Your task to perform on an android device: turn off data saver in the chrome app Image 0: 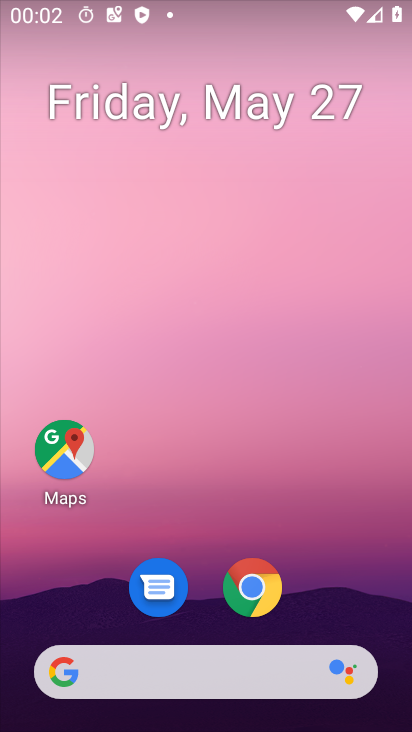
Step 0: click (256, 581)
Your task to perform on an android device: turn off data saver in the chrome app Image 1: 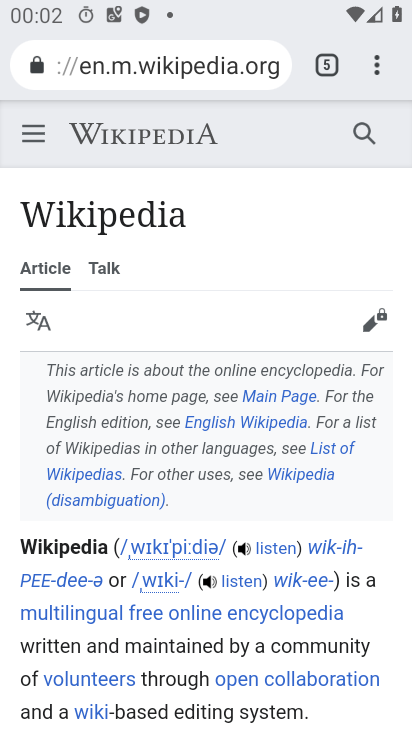
Step 1: click (375, 71)
Your task to perform on an android device: turn off data saver in the chrome app Image 2: 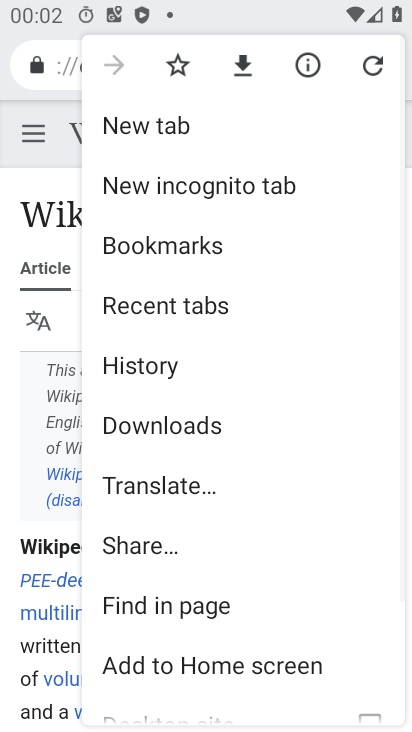
Step 2: drag from (249, 499) to (260, 242)
Your task to perform on an android device: turn off data saver in the chrome app Image 3: 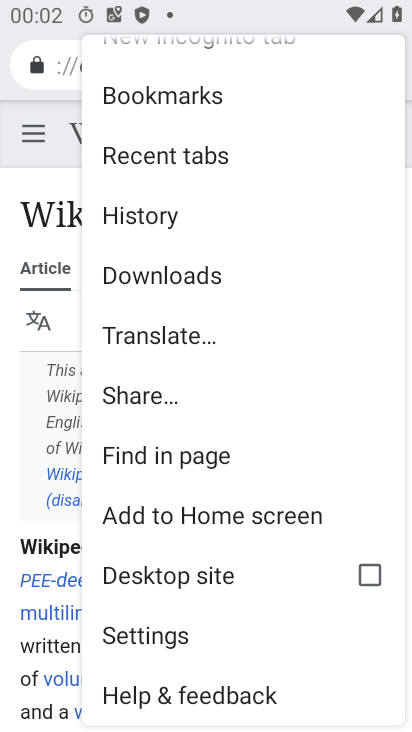
Step 3: click (149, 636)
Your task to perform on an android device: turn off data saver in the chrome app Image 4: 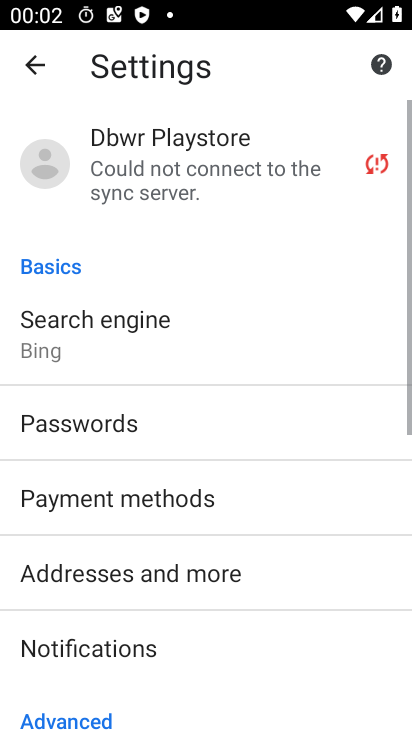
Step 4: drag from (233, 624) to (238, 234)
Your task to perform on an android device: turn off data saver in the chrome app Image 5: 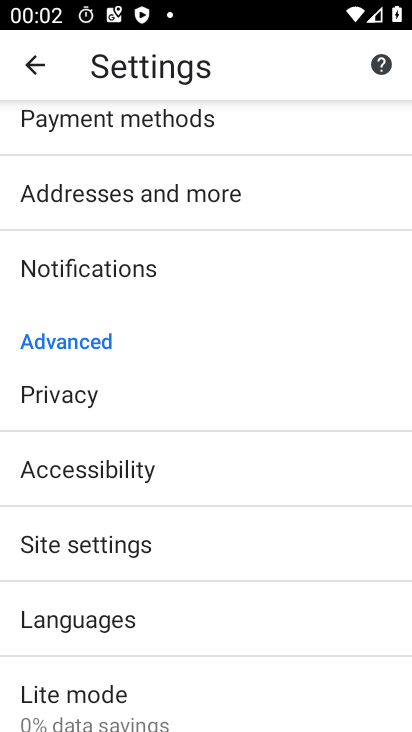
Step 5: drag from (211, 622) to (228, 398)
Your task to perform on an android device: turn off data saver in the chrome app Image 6: 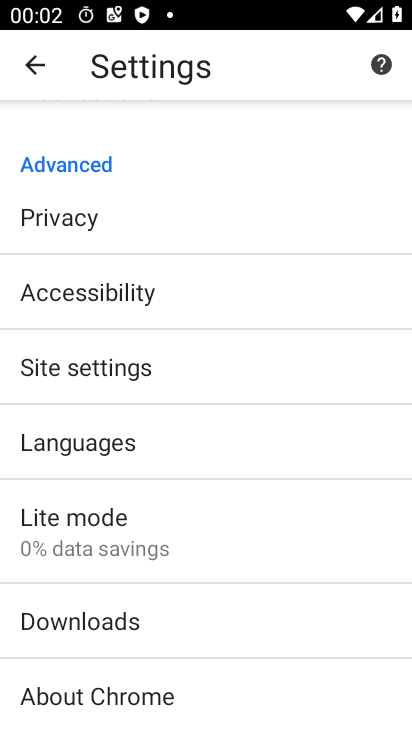
Step 6: click (77, 521)
Your task to perform on an android device: turn off data saver in the chrome app Image 7: 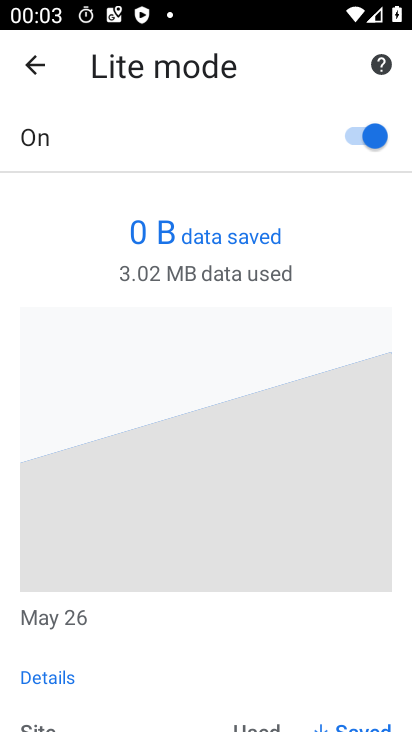
Step 7: click (358, 138)
Your task to perform on an android device: turn off data saver in the chrome app Image 8: 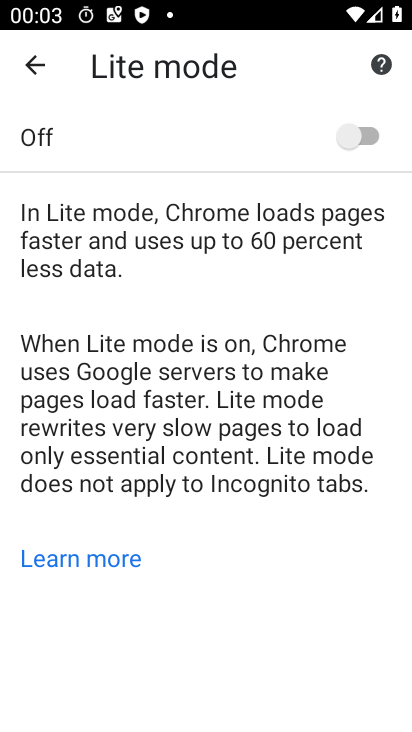
Step 8: task complete